Your task to perform on an android device: toggle javascript in the chrome app Image 0: 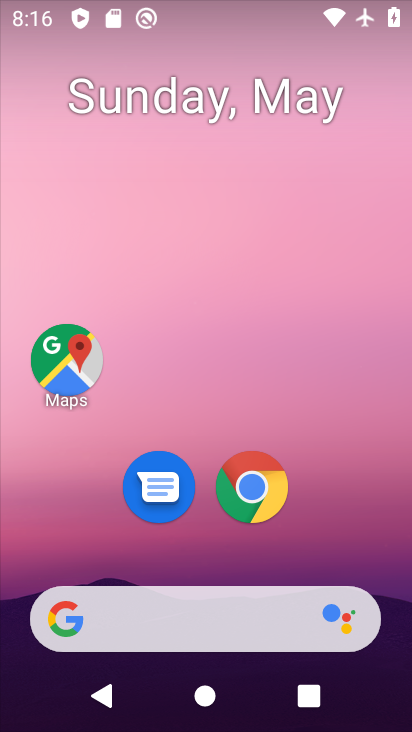
Step 0: click (260, 478)
Your task to perform on an android device: toggle javascript in the chrome app Image 1: 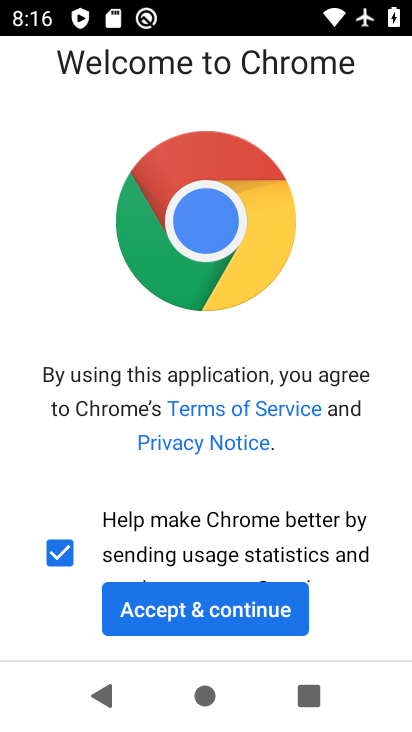
Step 1: click (220, 612)
Your task to perform on an android device: toggle javascript in the chrome app Image 2: 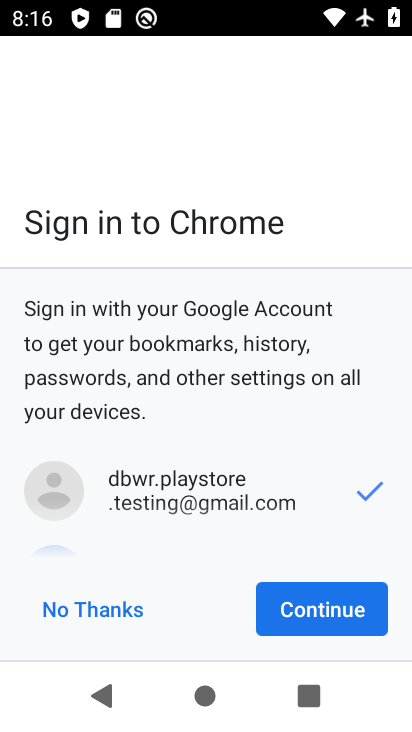
Step 2: click (293, 613)
Your task to perform on an android device: toggle javascript in the chrome app Image 3: 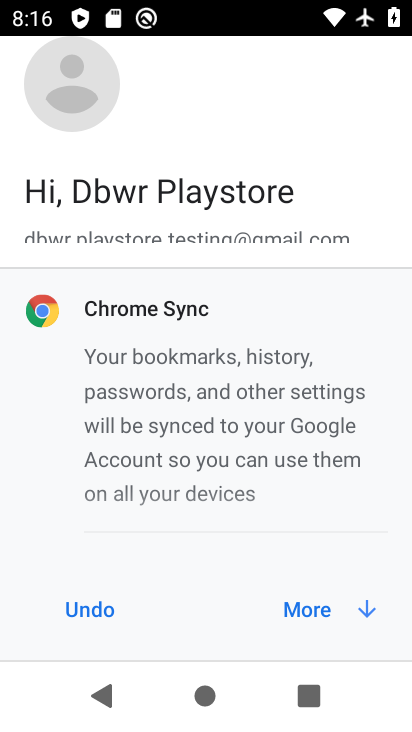
Step 3: click (311, 637)
Your task to perform on an android device: toggle javascript in the chrome app Image 4: 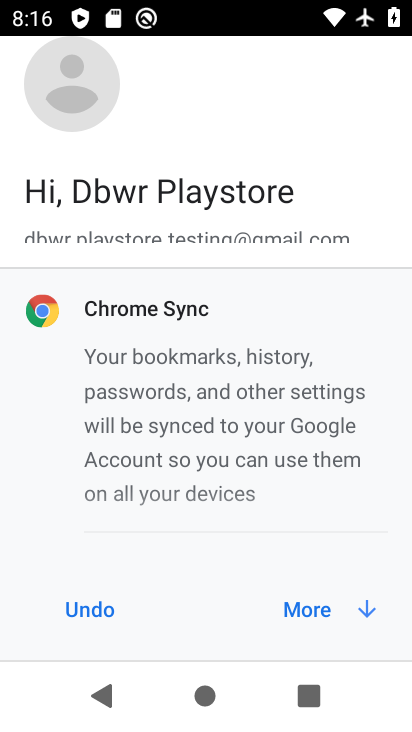
Step 4: click (319, 615)
Your task to perform on an android device: toggle javascript in the chrome app Image 5: 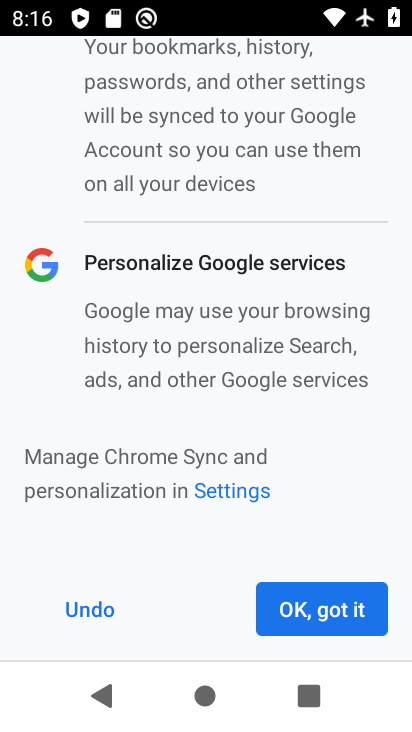
Step 5: click (319, 615)
Your task to perform on an android device: toggle javascript in the chrome app Image 6: 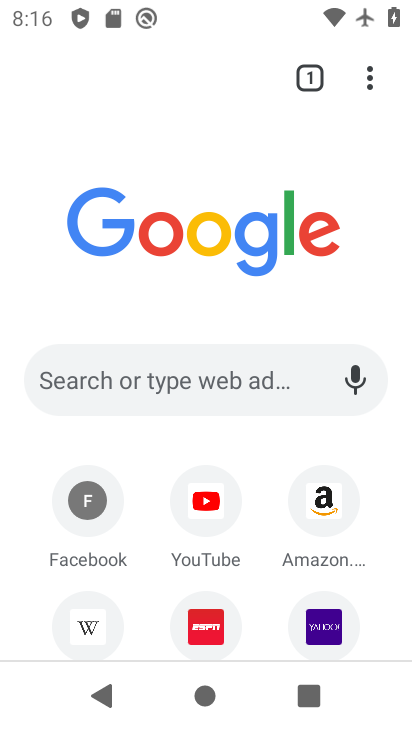
Step 6: drag from (378, 91) to (58, 550)
Your task to perform on an android device: toggle javascript in the chrome app Image 7: 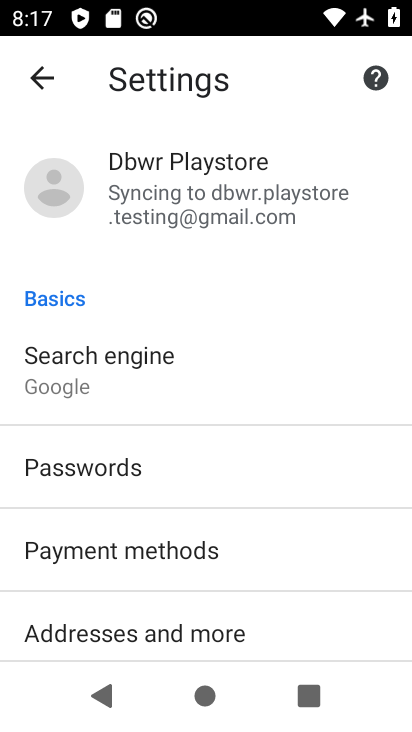
Step 7: click (90, 556)
Your task to perform on an android device: toggle javascript in the chrome app Image 8: 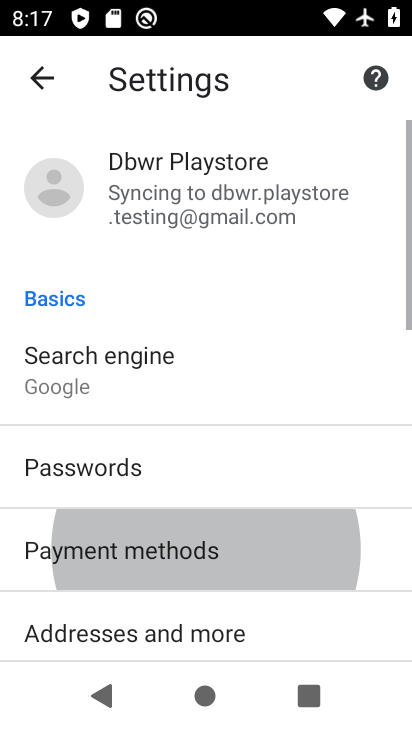
Step 8: drag from (158, 573) to (324, 91)
Your task to perform on an android device: toggle javascript in the chrome app Image 9: 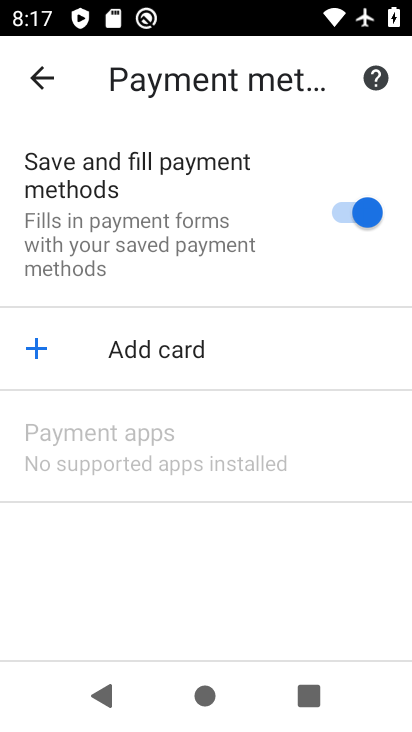
Step 9: click (45, 72)
Your task to perform on an android device: toggle javascript in the chrome app Image 10: 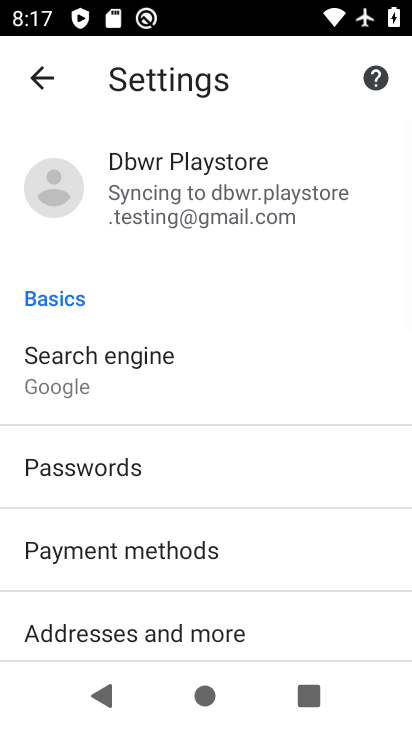
Step 10: drag from (141, 578) to (298, 30)
Your task to perform on an android device: toggle javascript in the chrome app Image 11: 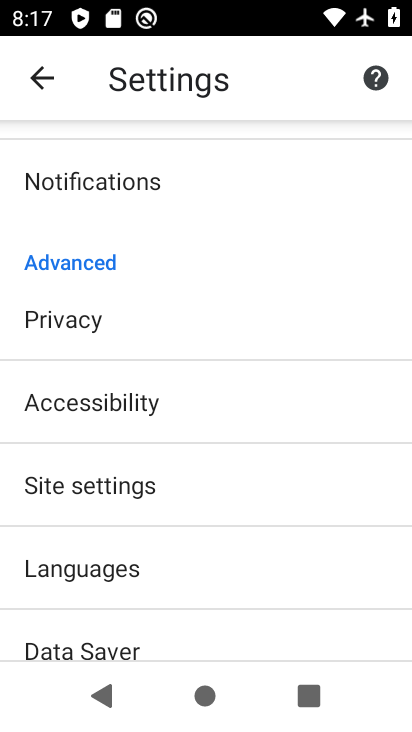
Step 11: click (109, 486)
Your task to perform on an android device: toggle javascript in the chrome app Image 12: 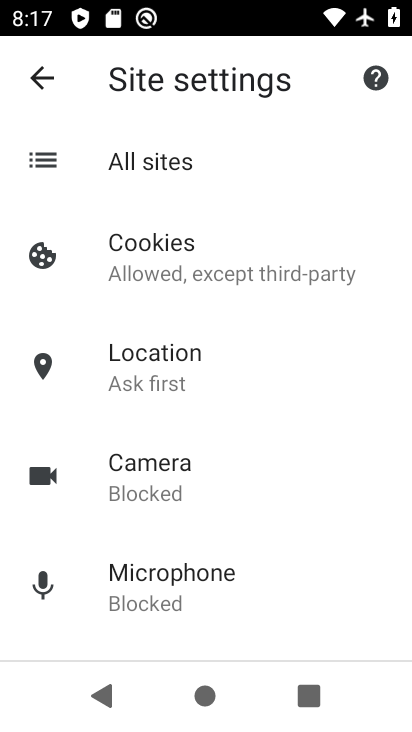
Step 12: drag from (182, 526) to (287, 112)
Your task to perform on an android device: toggle javascript in the chrome app Image 13: 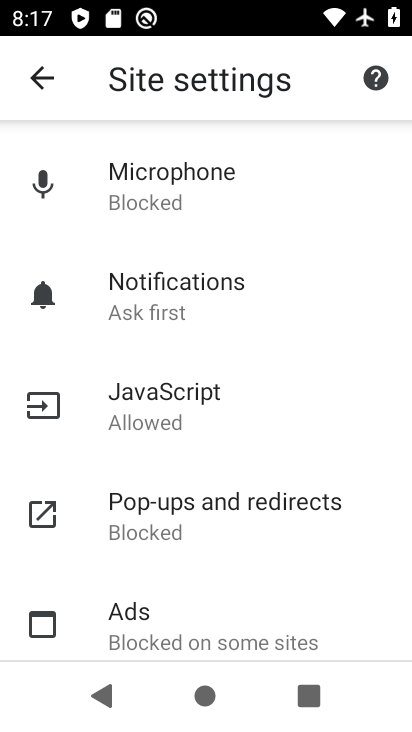
Step 13: click (160, 430)
Your task to perform on an android device: toggle javascript in the chrome app Image 14: 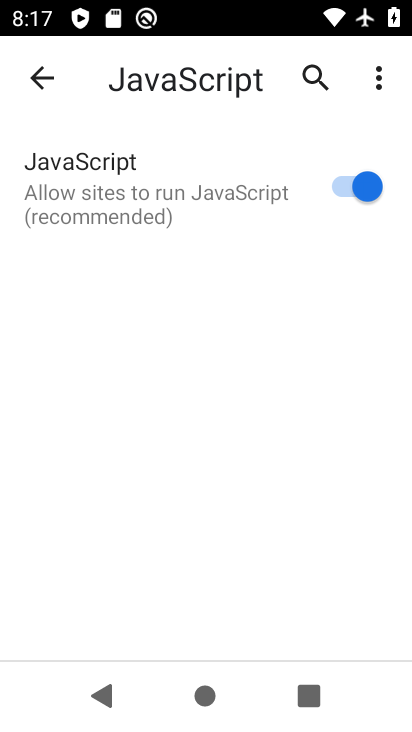
Step 14: click (356, 185)
Your task to perform on an android device: toggle javascript in the chrome app Image 15: 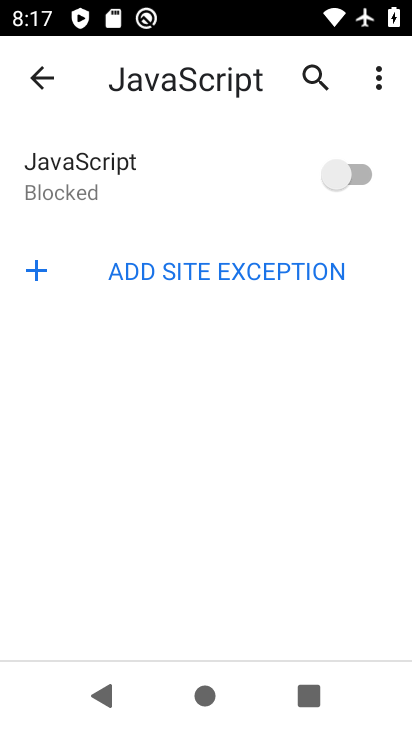
Step 15: task complete